Your task to perform on an android device: open wifi settings Image 0: 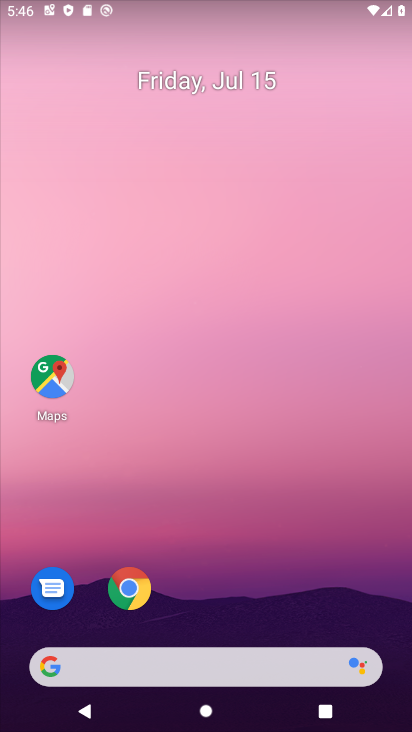
Step 0: drag from (178, 647) to (187, 72)
Your task to perform on an android device: open wifi settings Image 1: 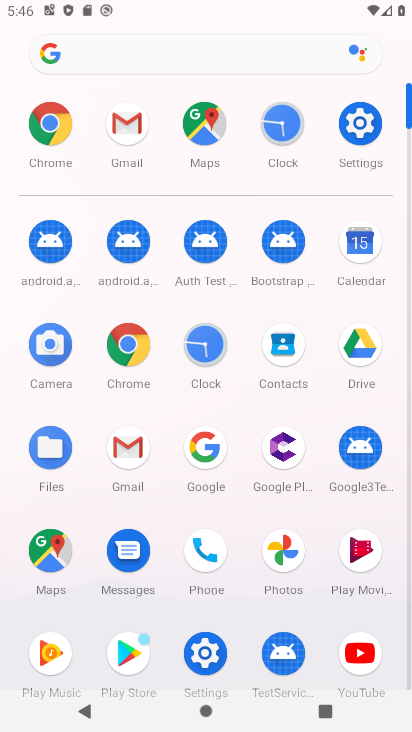
Step 1: click (366, 113)
Your task to perform on an android device: open wifi settings Image 2: 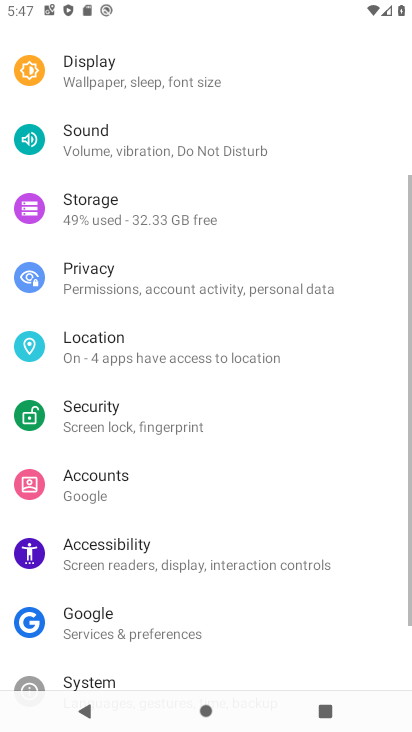
Step 2: drag from (211, 142) to (218, 564)
Your task to perform on an android device: open wifi settings Image 3: 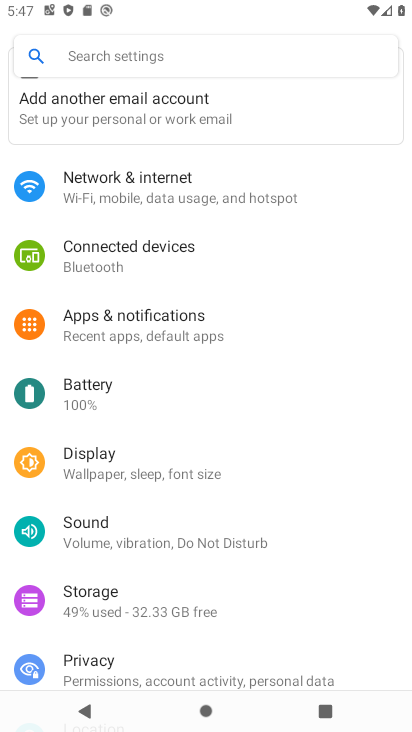
Step 3: click (130, 180)
Your task to perform on an android device: open wifi settings Image 4: 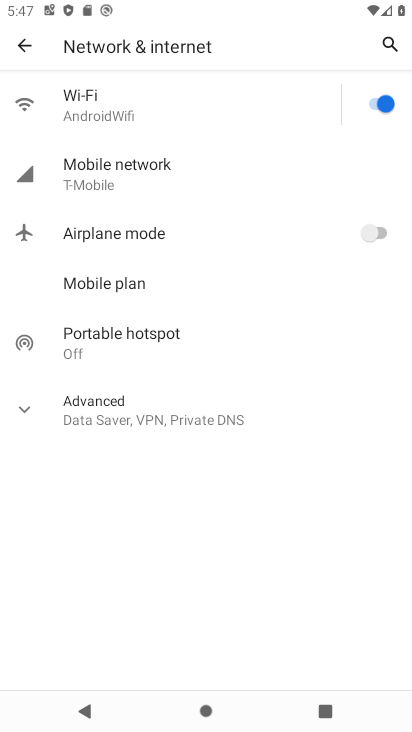
Step 4: task complete